Your task to perform on an android device: Set the phone to "Do not disturb". Image 0: 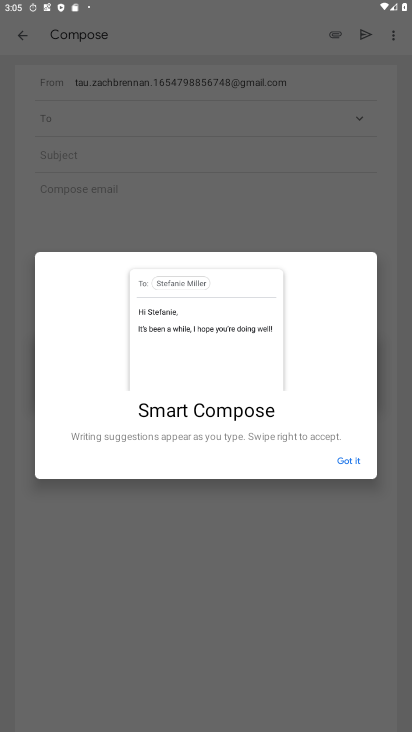
Step 0: press home button
Your task to perform on an android device: Set the phone to "Do not disturb". Image 1: 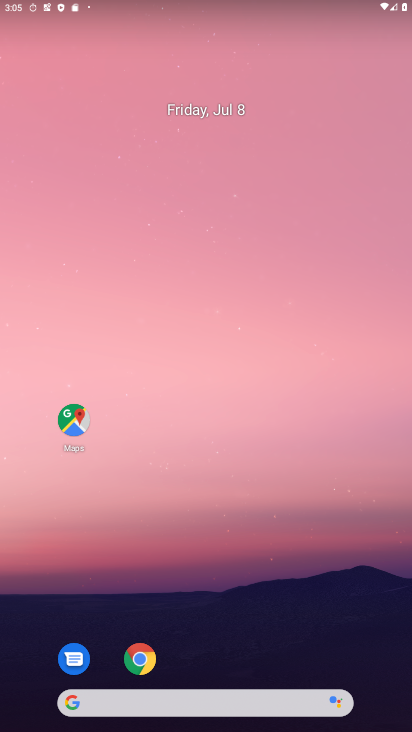
Step 1: drag from (239, 629) to (239, 50)
Your task to perform on an android device: Set the phone to "Do not disturb". Image 2: 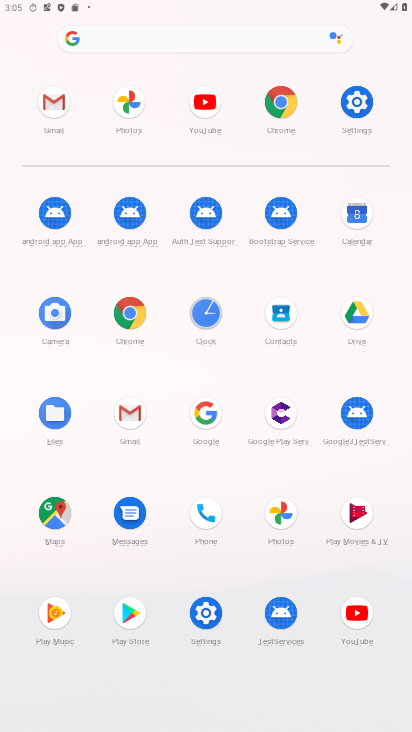
Step 2: click (204, 623)
Your task to perform on an android device: Set the phone to "Do not disturb". Image 3: 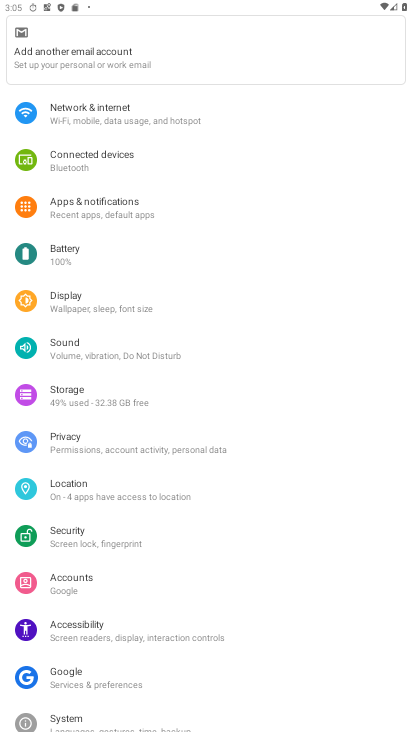
Step 3: click (158, 346)
Your task to perform on an android device: Set the phone to "Do not disturb". Image 4: 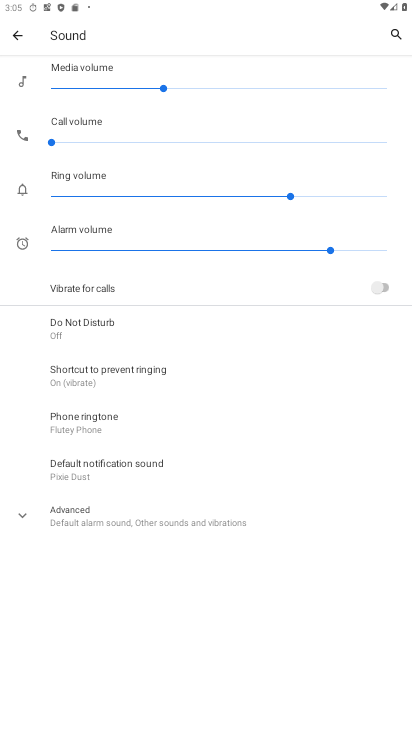
Step 4: click (109, 316)
Your task to perform on an android device: Set the phone to "Do not disturb". Image 5: 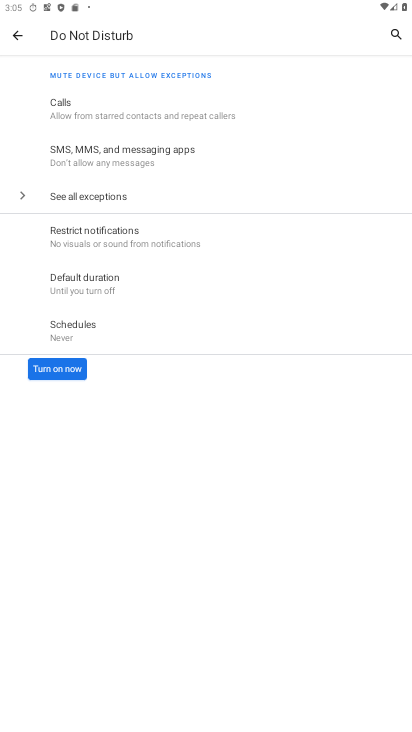
Step 5: click (45, 373)
Your task to perform on an android device: Set the phone to "Do not disturb". Image 6: 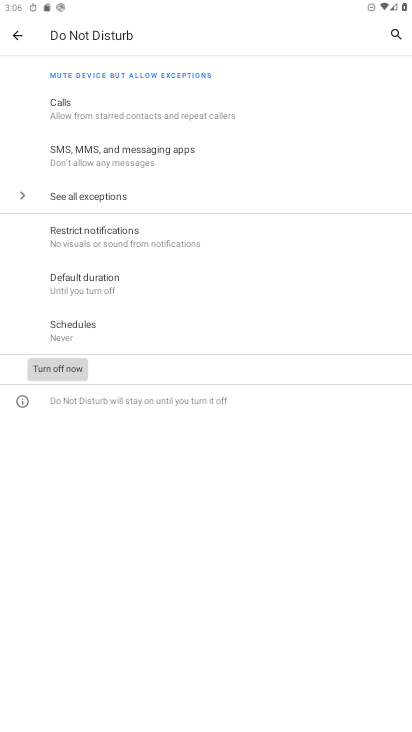
Step 6: task complete